Your task to perform on an android device: check storage Image 0: 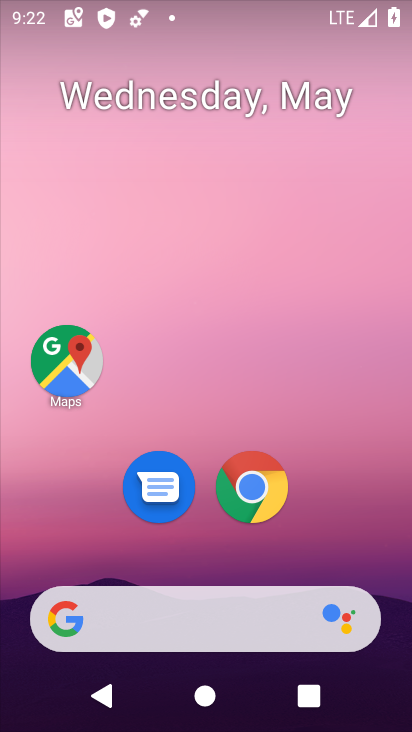
Step 0: click (366, 526)
Your task to perform on an android device: check storage Image 1: 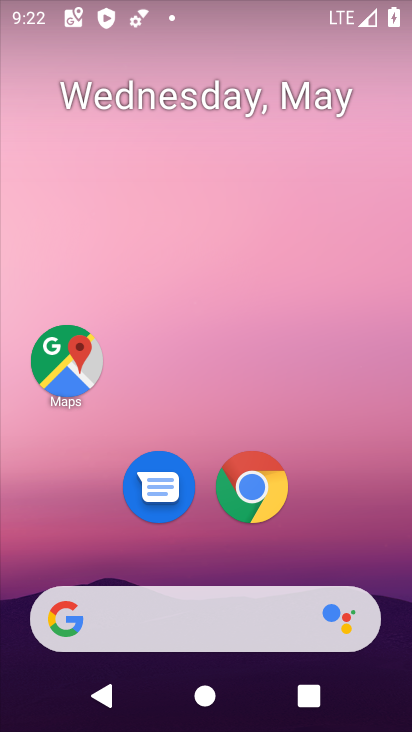
Step 1: drag from (348, 531) to (289, 178)
Your task to perform on an android device: check storage Image 2: 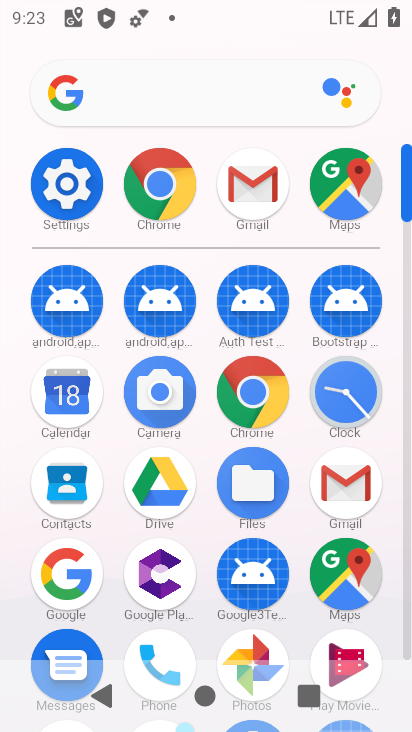
Step 2: click (59, 193)
Your task to perform on an android device: check storage Image 3: 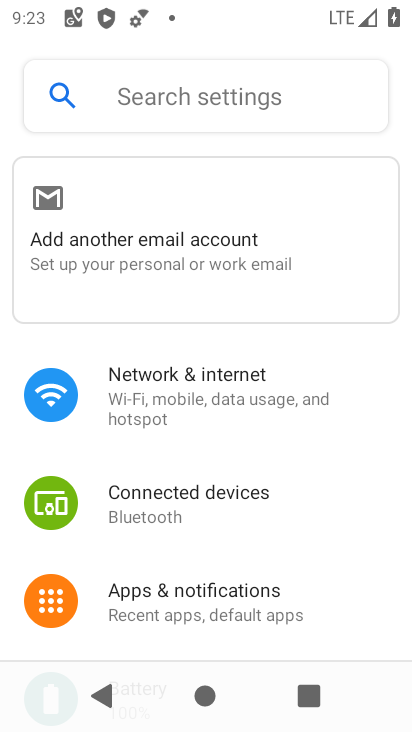
Step 3: drag from (255, 522) to (210, 295)
Your task to perform on an android device: check storage Image 4: 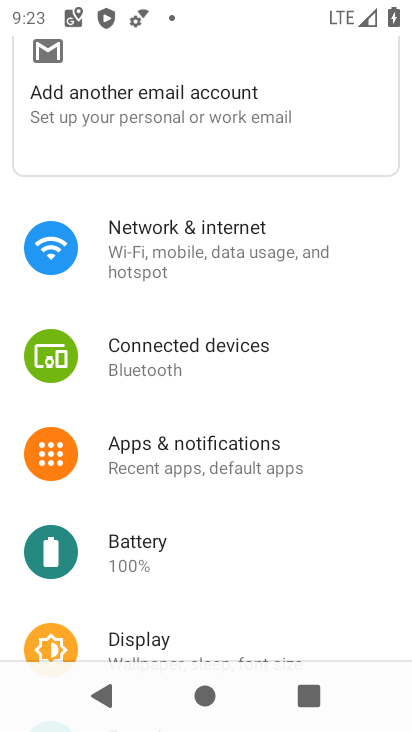
Step 4: drag from (233, 590) to (187, 302)
Your task to perform on an android device: check storage Image 5: 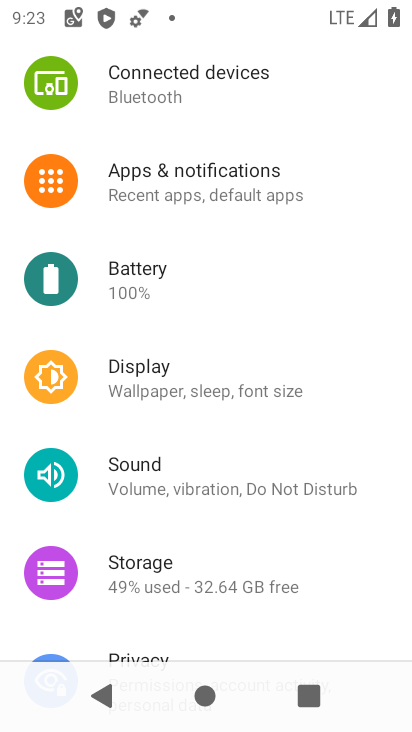
Step 5: click (140, 568)
Your task to perform on an android device: check storage Image 6: 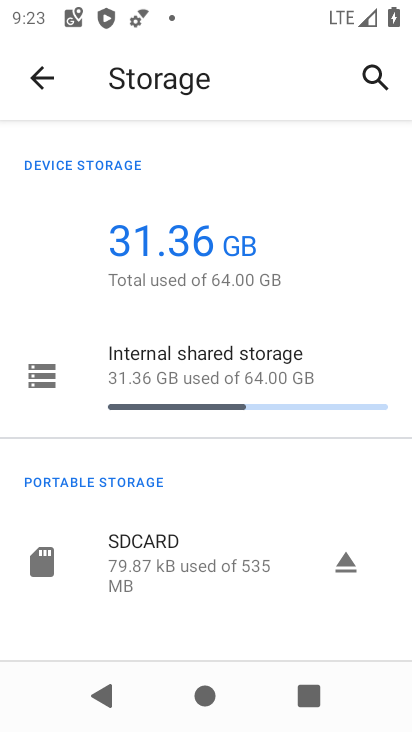
Step 6: task complete